Your task to perform on an android device: Go to Android settings Image 0: 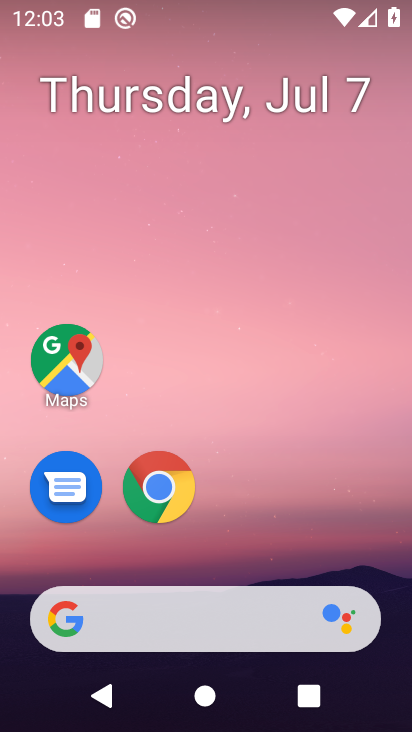
Step 0: drag from (347, 524) to (341, 218)
Your task to perform on an android device: Go to Android settings Image 1: 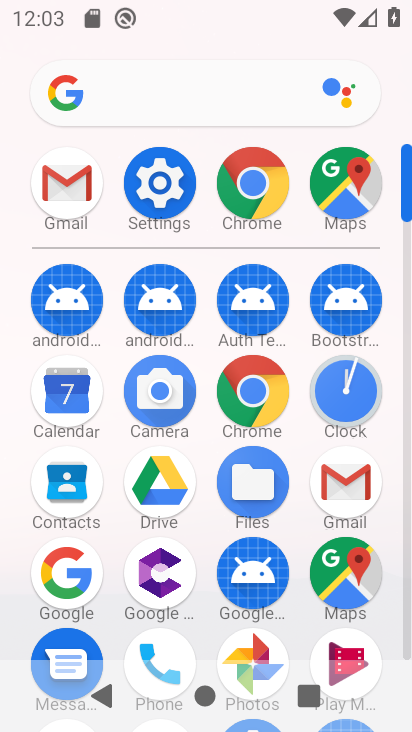
Step 1: click (179, 200)
Your task to perform on an android device: Go to Android settings Image 2: 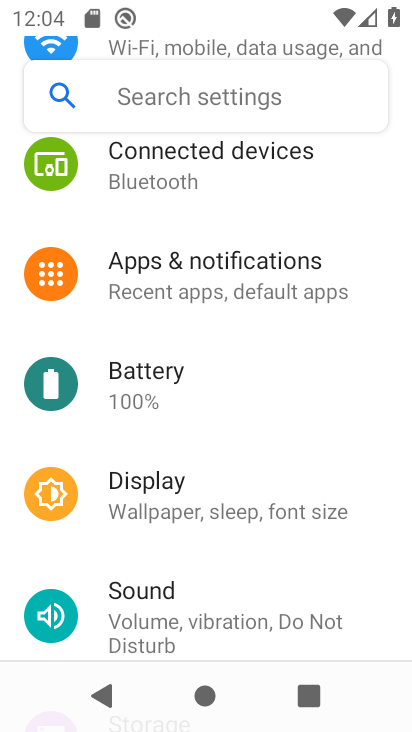
Step 2: drag from (361, 199) to (362, 406)
Your task to perform on an android device: Go to Android settings Image 3: 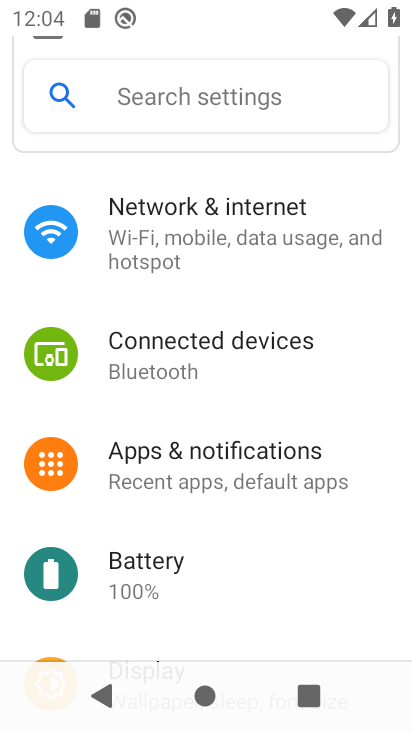
Step 3: drag from (359, 191) to (371, 432)
Your task to perform on an android device: Go to Android settings Image 4: 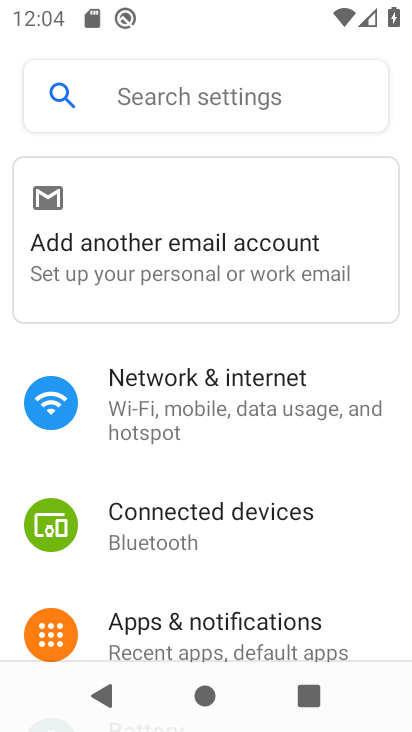
Step 4: drag from (343, 507) to (342, 262)
Your task to perform on an android device: Go to Android settings Image 5: 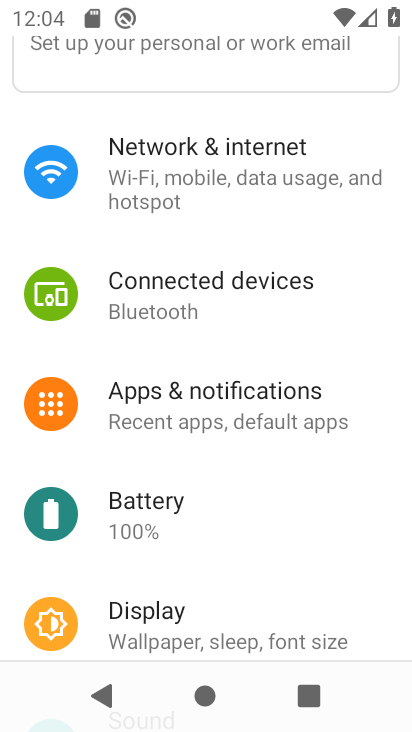
Step 5: drag from (326, 517) to (306, 313)
Your task to perform on an android device: Go to Android settings Image 6: 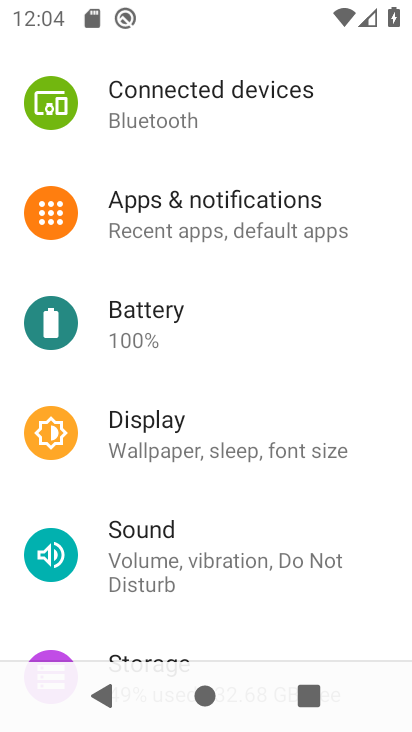
Step 6: drag from (360, 542) to (339, 319)
Your task to perform on an android device: Go to Android settings Image 7: 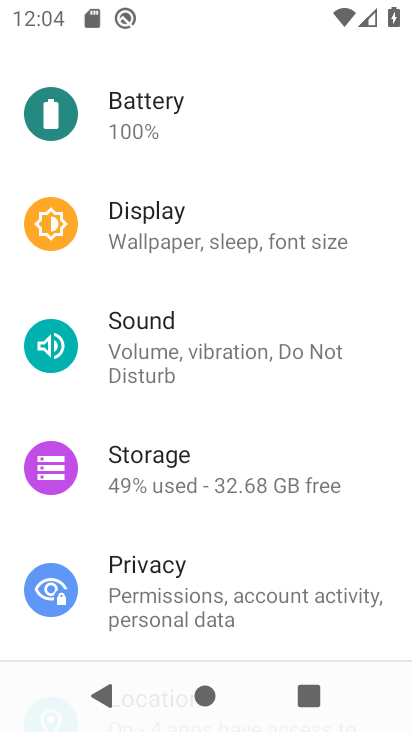
Step 7: drag from (340, 539) to (345, 242)
Your task to perform on an android device: Go to Android settings Image 8: 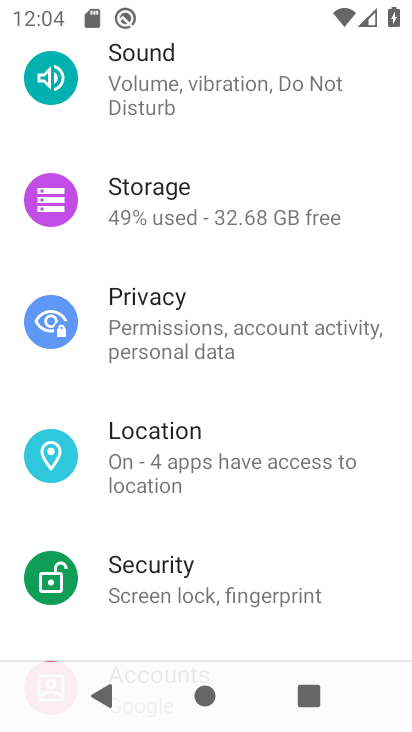
Step 8: drag from (364, 558) to (372, 362)
Your task to perform on an android device: Go to Android settings Image 9: 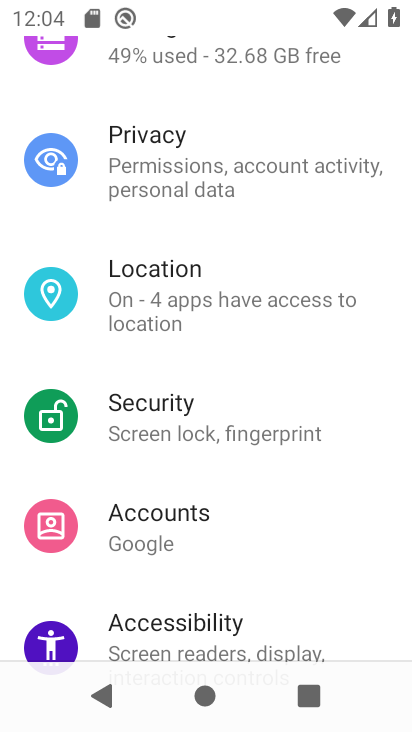
Step 9: drag from (365, 487) to (371, 418)
Your task to perform on an android device: Go to Android settings Image 10: 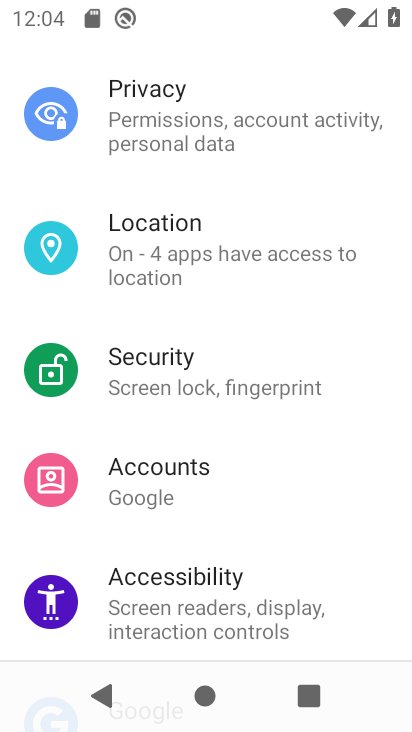
Step 10: drag from (321, 506) to (347, 332)
Your task to perform on an android device: Go to Android settings Image 11: 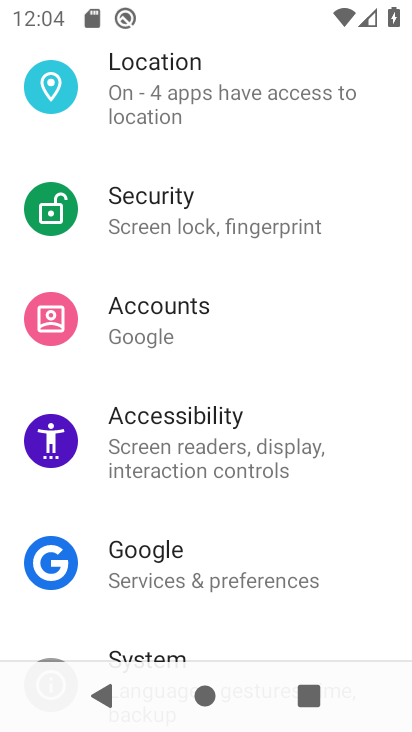
Step 11: drag from (361, 598) to (363, 390)
Your task to perform on an android device: Go to Android settings Image 12: 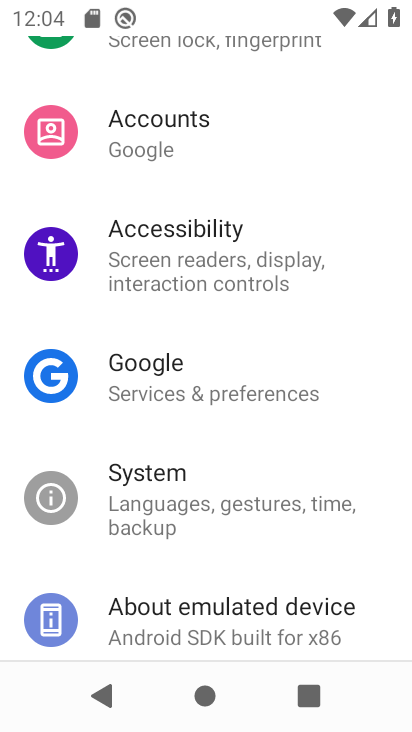
Step 12: click (250, 513)
Your task to perform on an android device: Go to Android settings Image 13: 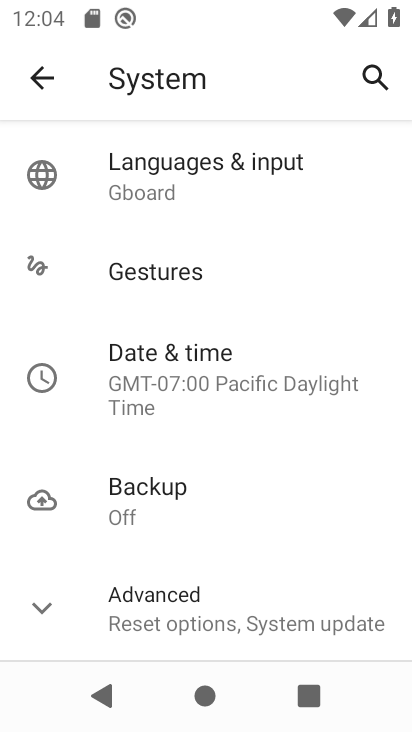
Step 13: click (285, 617)
Your task to perform on an android device: Go to Android settings Image 14: 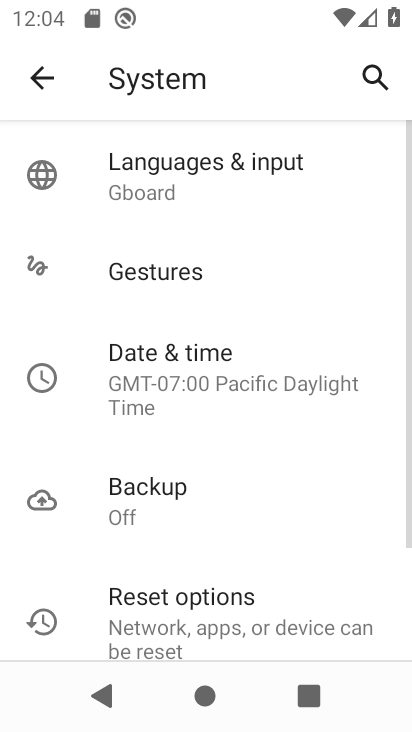
Step 14: task complete